Your task to perform on an android device: turn off location Image 0: 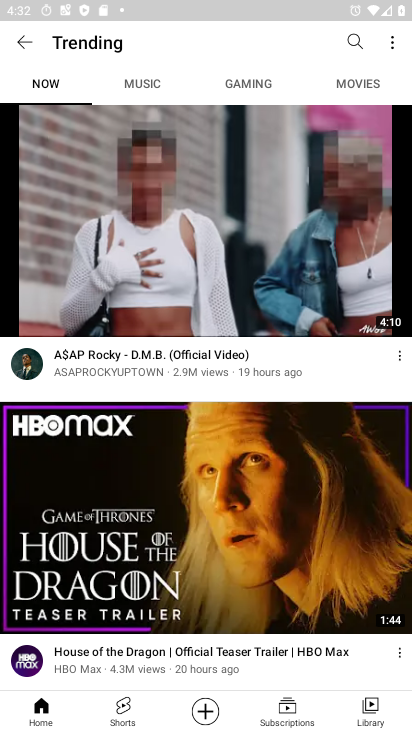
Step 0: press home button
Your task to perform on an android device: turn off location Image 1: 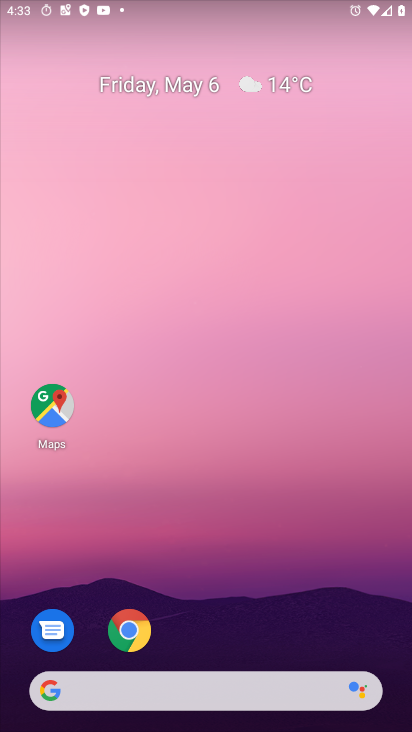
Step 1: drag from (203, 643) to (389, 3)
Your task to perform on an android device: turn off location Image 2: 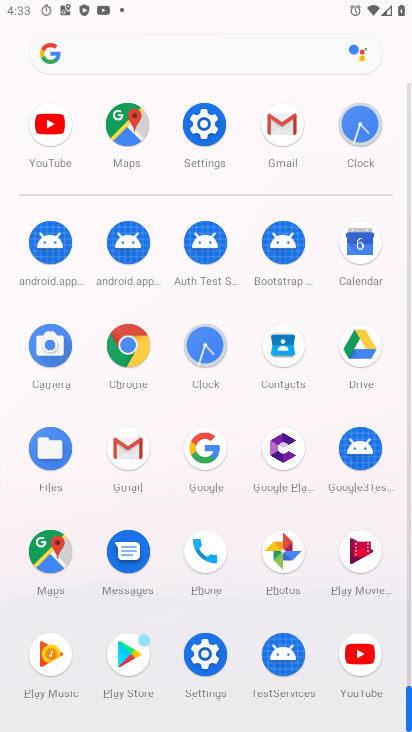
Step 2: click (202, 160)
Your task to perform on an android device: turn off location Image 3: 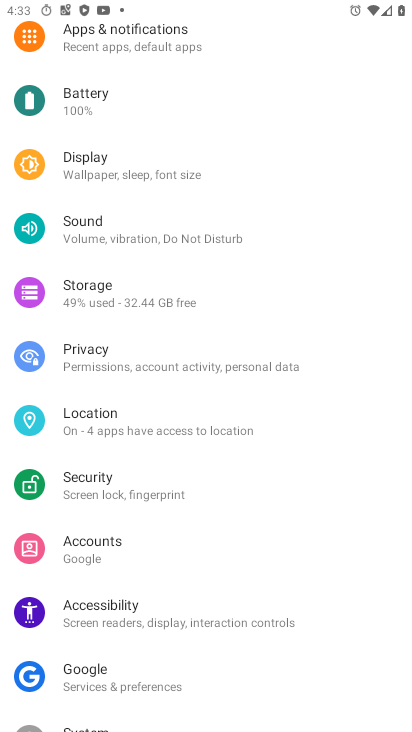
Step 3: click (172, 417)
Your task to perform on an android device: turn off location Image 4: 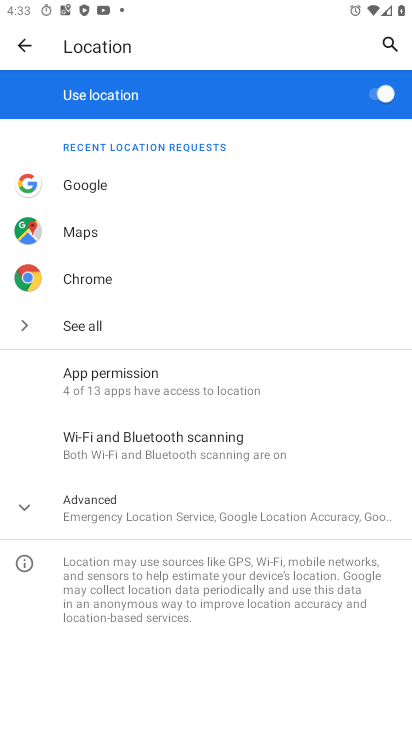
Step 4: click (374, 92)
Your task to perform on an android device: turn off location Image 5: 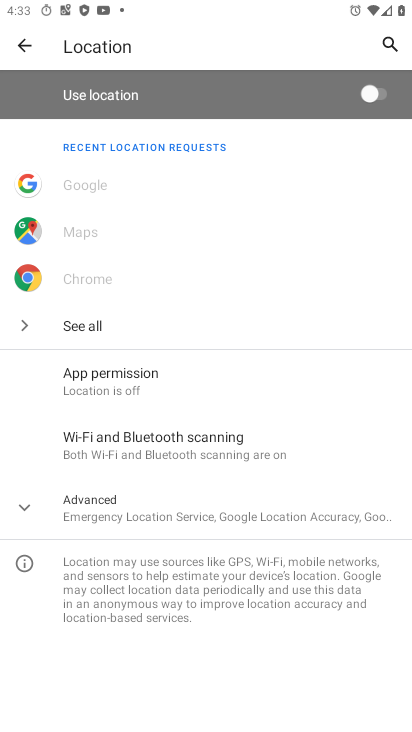
Step 5: task complete